Your task to perform on an android device: Go to battery settings Image 0: 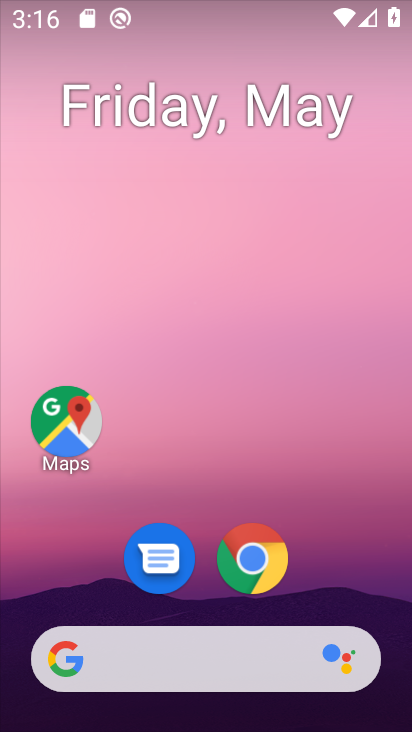
Step 0: drag from (176, 651) to (255, 113)
Your task to perform on an android device: Go to battery settings Image 1: 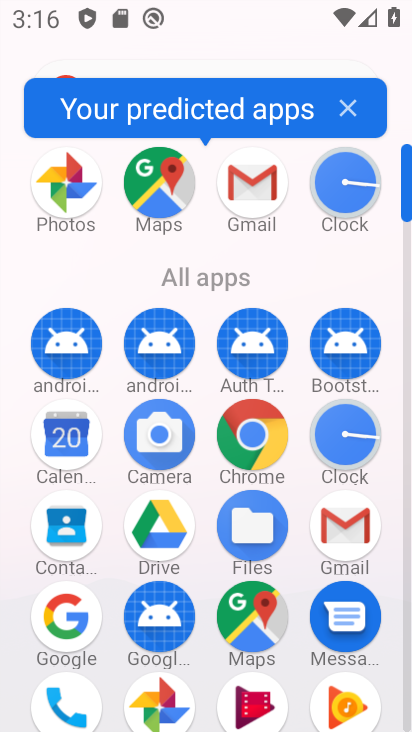
Step 1: drag from (270, 364) to (336, 190)
Your task to perform on an android device: Go to battery settings Image 2: 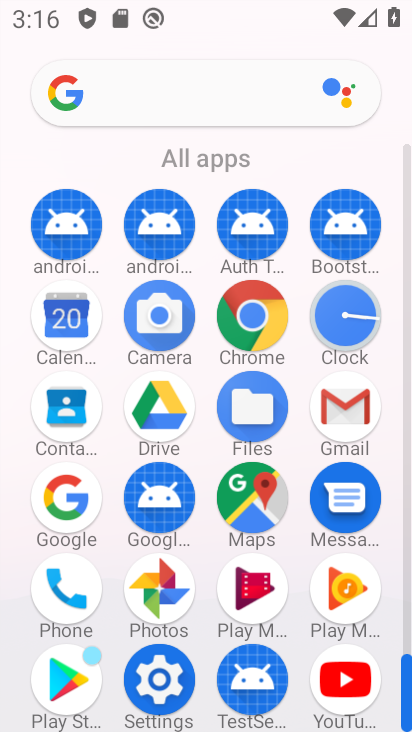
Step 2: click (163, 674)
Your task to perform on an android device: Go to battery settings Image 3: 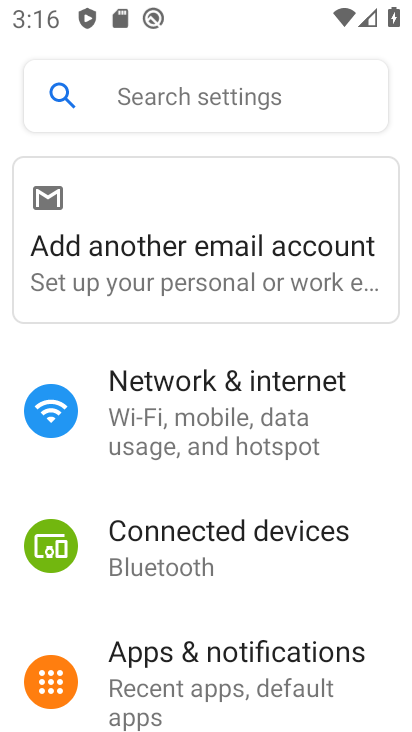
Step 3: drag from (190, 637) to (295, 127)
Your task to perform on an android device: Go to battery settings Image 4: 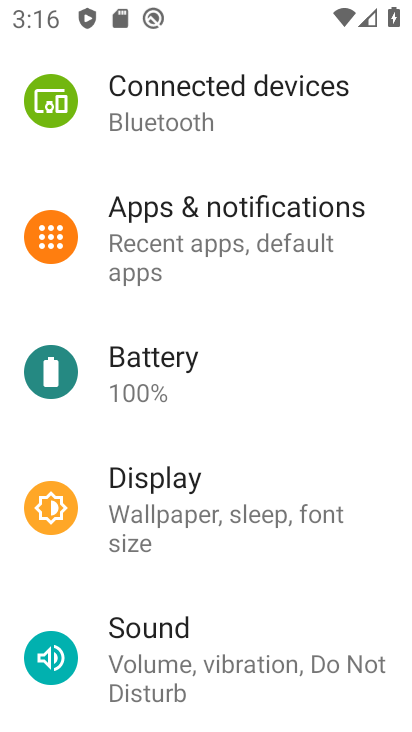
Step 4: click (185, 375)
Your task to perform on an android device: Go to battery settings Image 5: 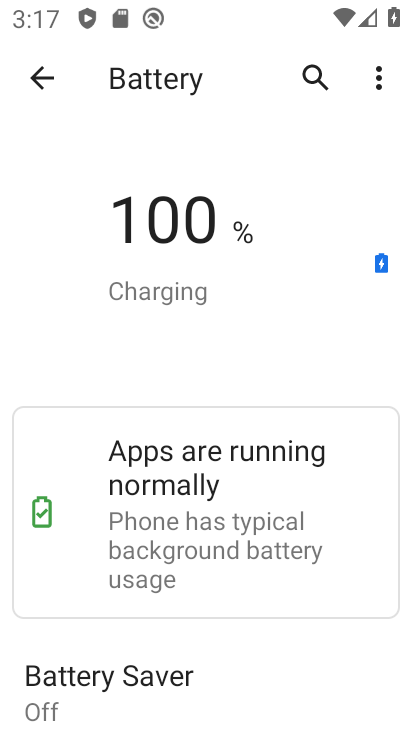
Step 5: task complete